Your task to perform on an android device: turn on notifications settings in the gmail app Image 0: 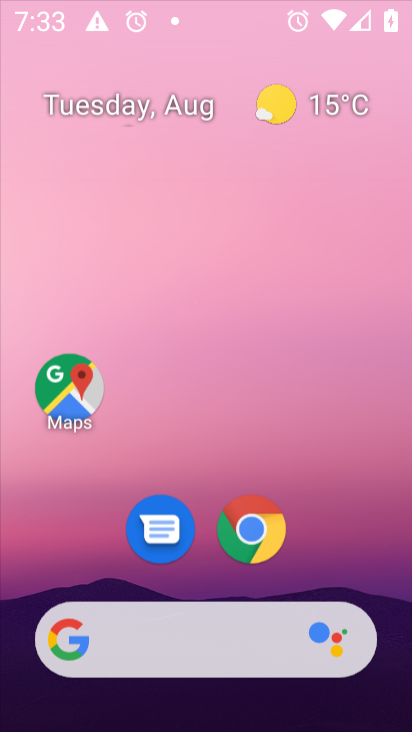
Step 0: press home button
Your task to perform on an android device: turn on notifications settings in the gmail app Image 1: 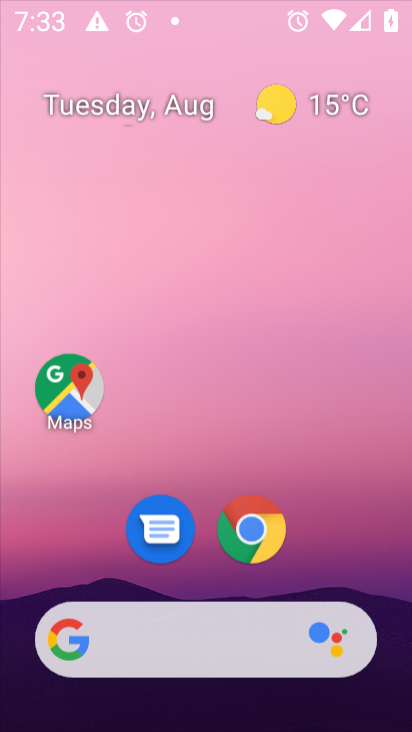
Step 1: click (207, 129)
Your task to perform on an android device: turn on notifications settings in the gmail app Image 2: 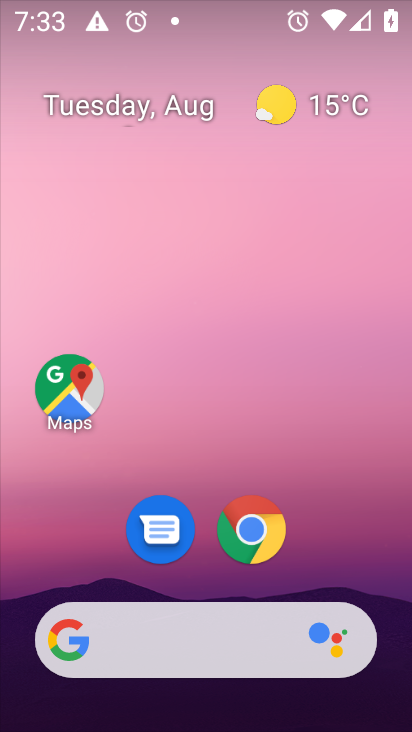
Step 2: drag from (211, 574) to (228, 108)
Your task to perform on an android device: turn on notifications settings in the gmail app Image 3: 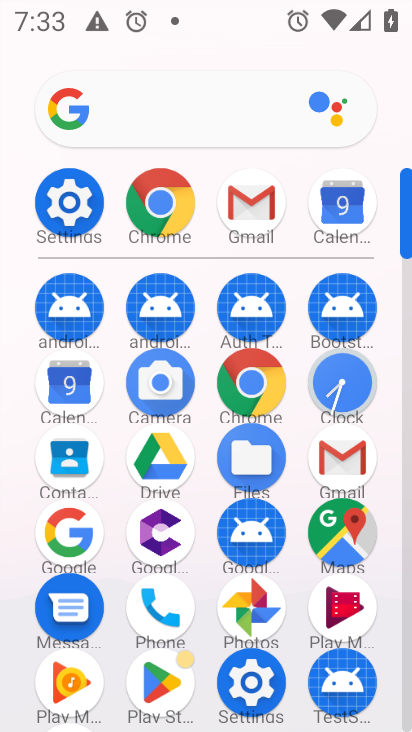
Step 3: click (252, 206)
Your task to perform on an android device: turn on notifications settings in the gmail app Image 4: 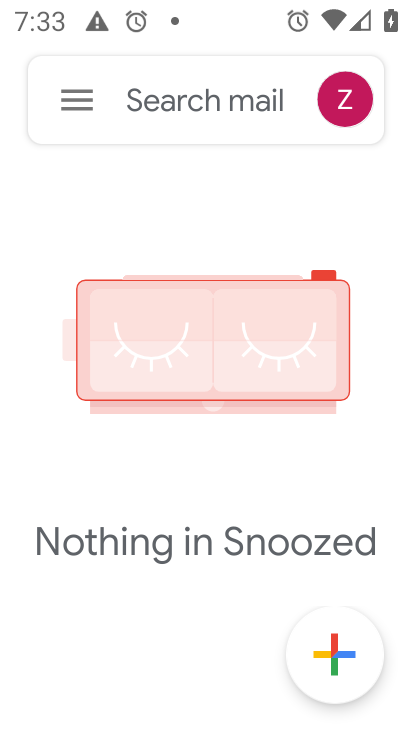
Step 4: click (61, 107)
Your task to perform on an android device: turn on notifications settings in the gmail app Image 5: 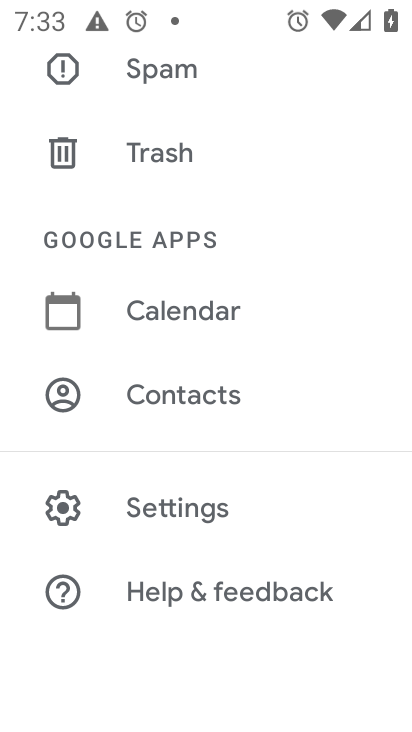
Step 5: click (175, 512)
Your task to perform on an android device: turn on notifications settings in the gmail app Image 6: 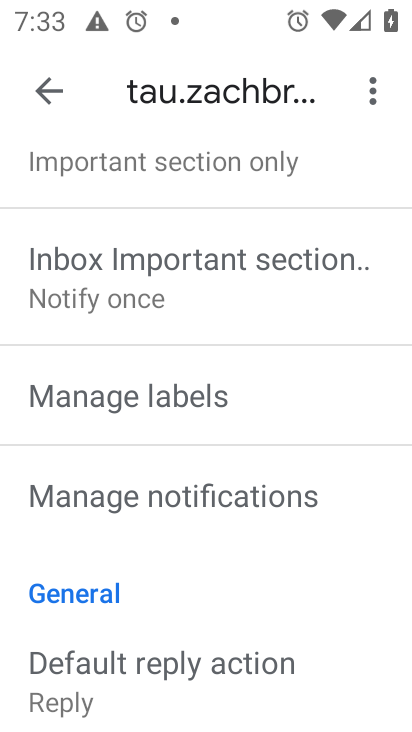
Step 6: click (170, 497)
Your task to perform on an android device: turn on notifications settings in the gmail app Image 7: 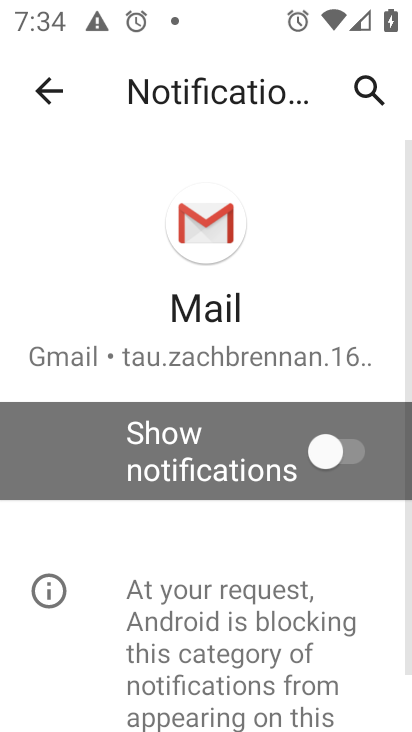
Step 7: click (316, 455)
Your task to perform on an android device: turn on notifications settings in the gmail app Image 8: 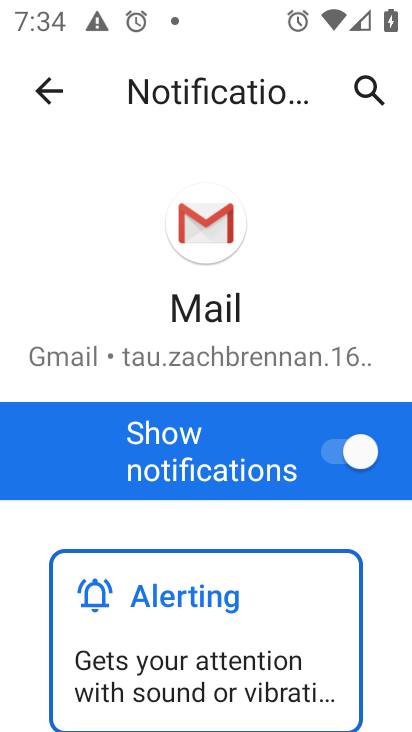
Step 8: task complete